Your task to perform on an android device: set default search engine in the chrome app Image 0: 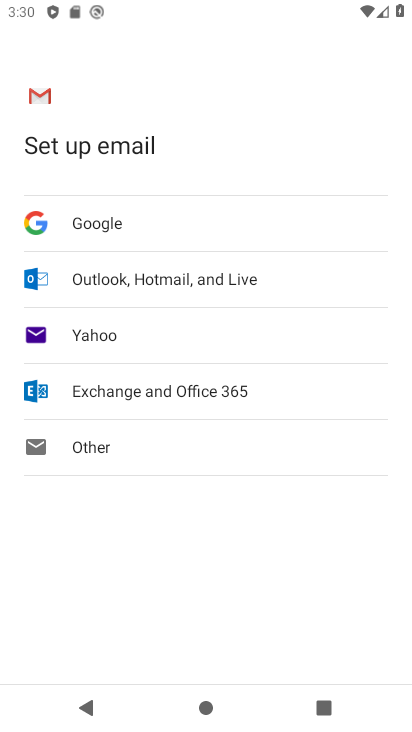
Step 0: press home button
Your task to perform on an android device: set default search engine in the chrome app Image 1: 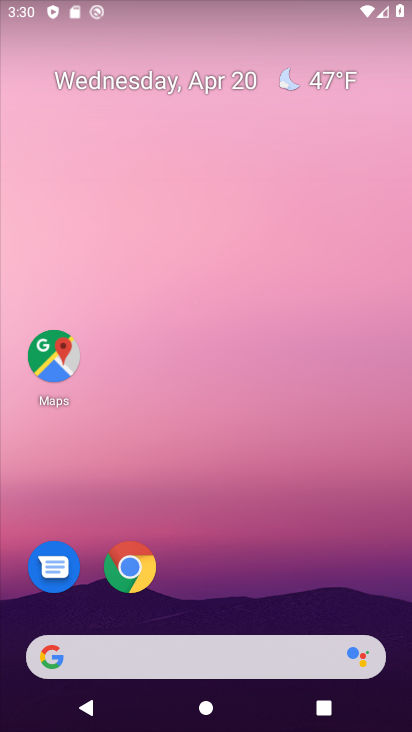
Step 1: click (129, 566)
Your task to perform on an android device: set default search engine in the chrome app Image 2: 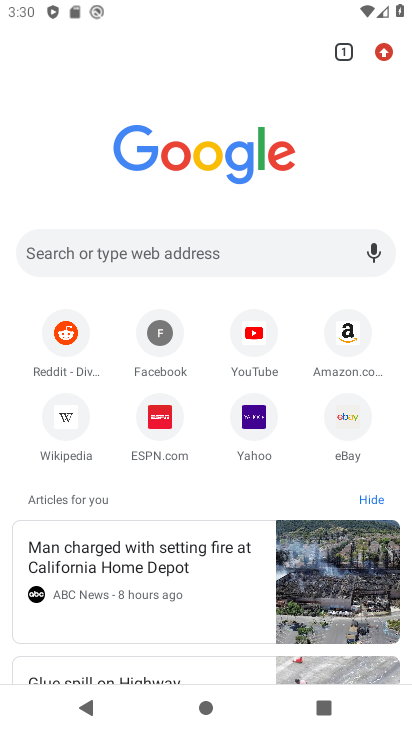
Step 2: click (389, 56)
Your task to perform on an android device: set default search engine in the chrome app Image 3: 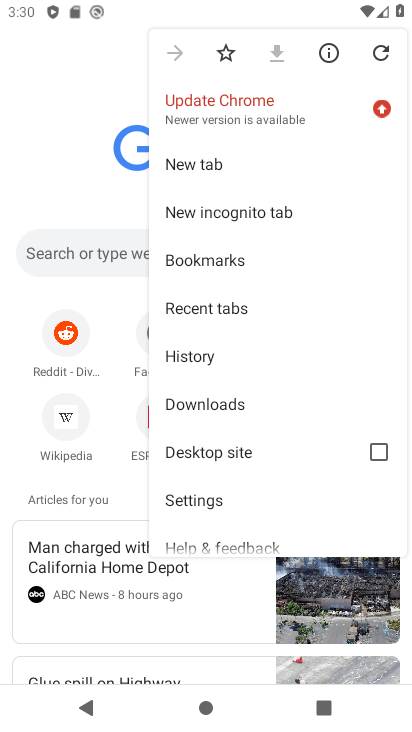
Step 3: click (215, 507)
Your task to perform on an android device: set default search engine in the chrome app Image 4: 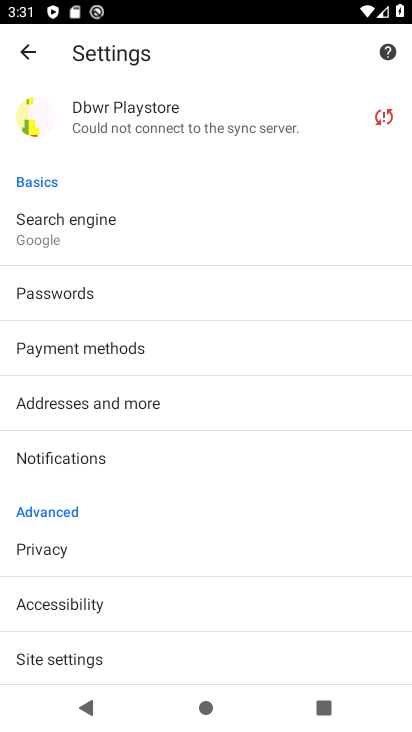
Step 4: click (111, 239)
Your task to perform on an android device: set default search engine in the chrome app Image 5: 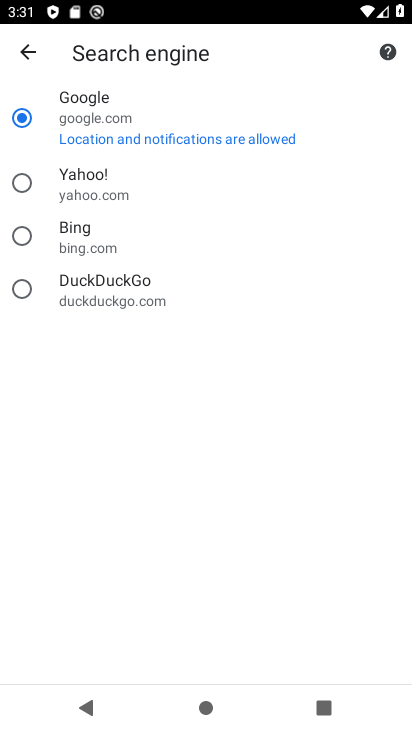
Step 5: click (111, 239)
Your task to perform on an android device: set default search engine in the chrome app Image 6: 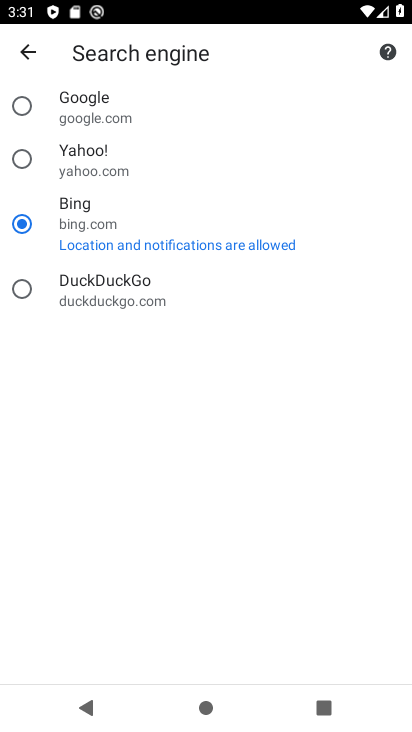
Step 6: task complete